Your task to perform on an android device: turn pop-ups on in chrome Image 0: 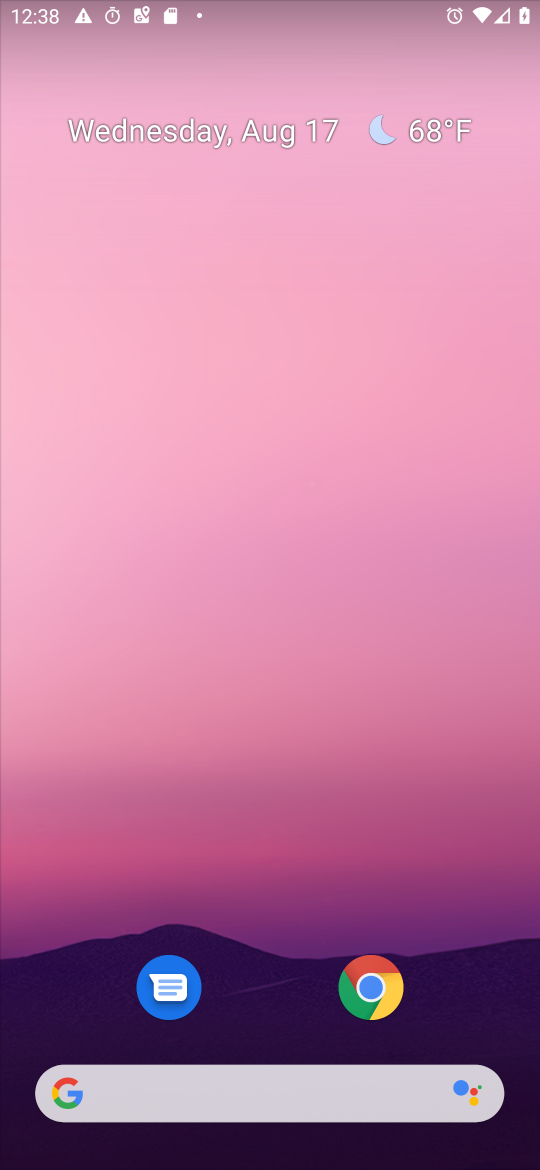
Step 0: drag from (119, 1078) to (179, 448)
Your task to perform on an android device: turn pop-ups on in chrome Image 1: 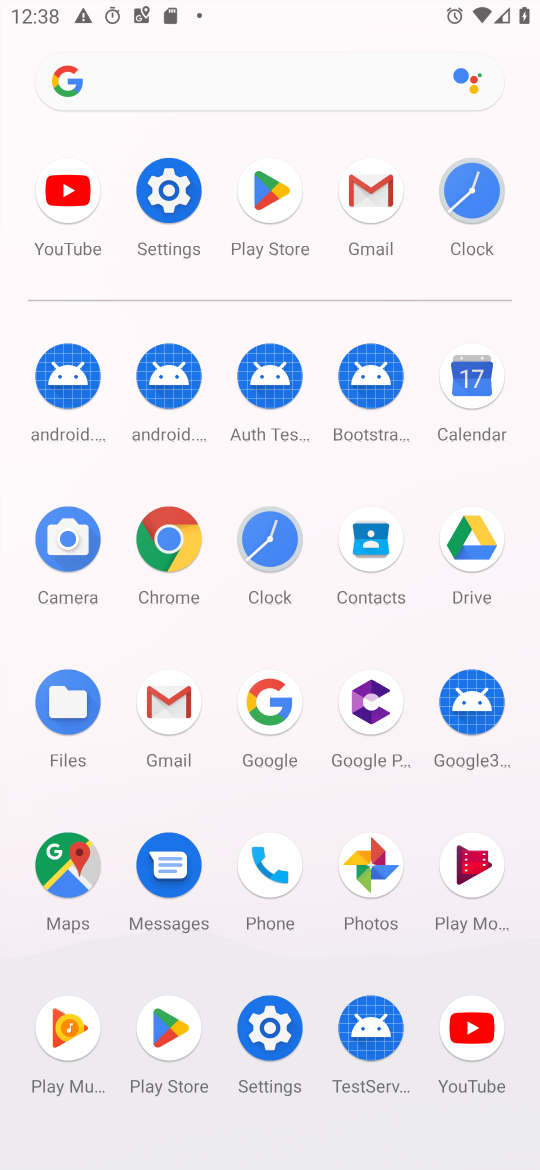
Step 1: click (158, 567)
Your task to perform on an android device: turn pop-ups on in chrome Image 2: 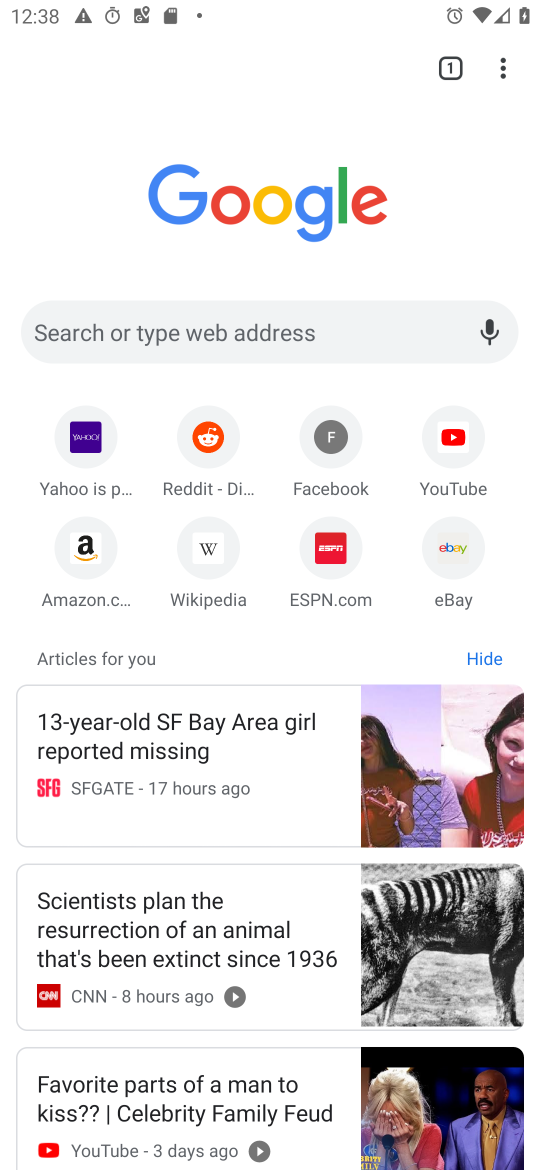
Step 2: click (502, 67)
Your task to perform on an android device: turn pop-ups on in chrome Image 3: 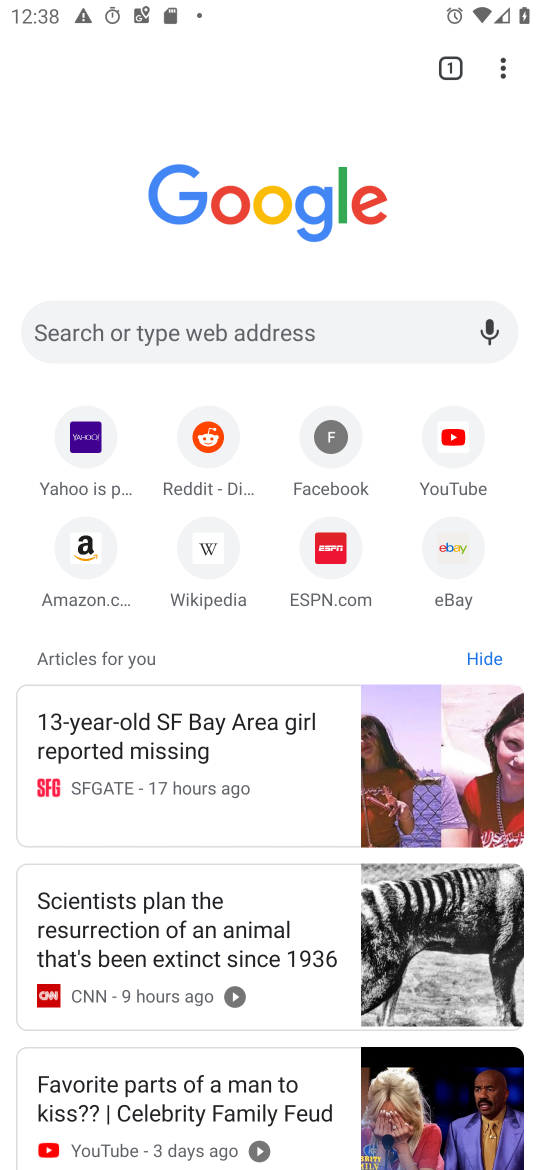
Step 3: click (505, 69)
Your task to perform on an android device: turn pop-ups on in chrome Image 4: 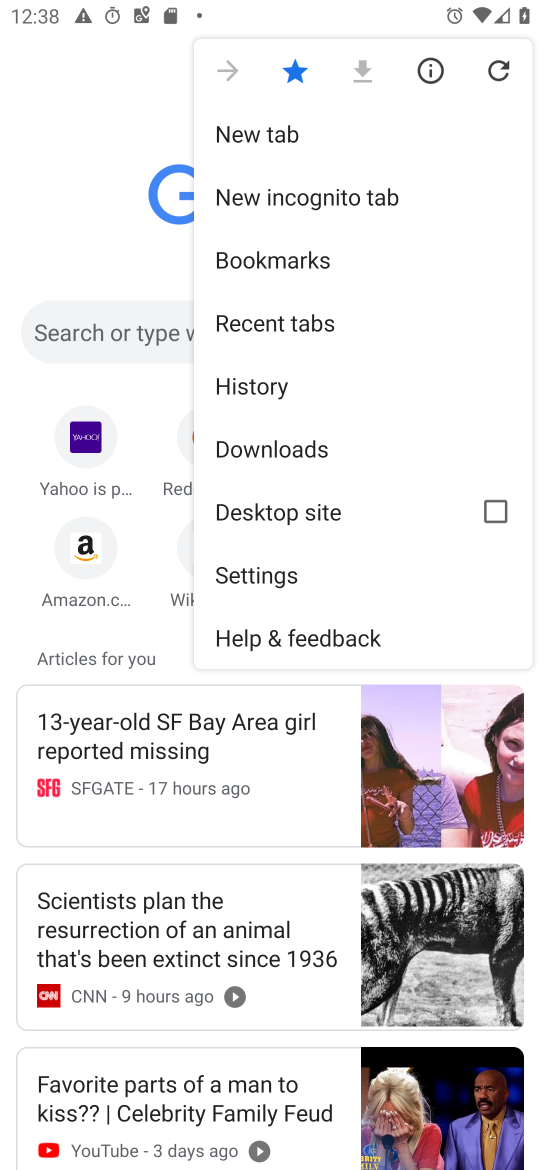
Step 4: click (242, 557)
Your task to perform on an android device: turn pop-ups on in chrome Image 5: 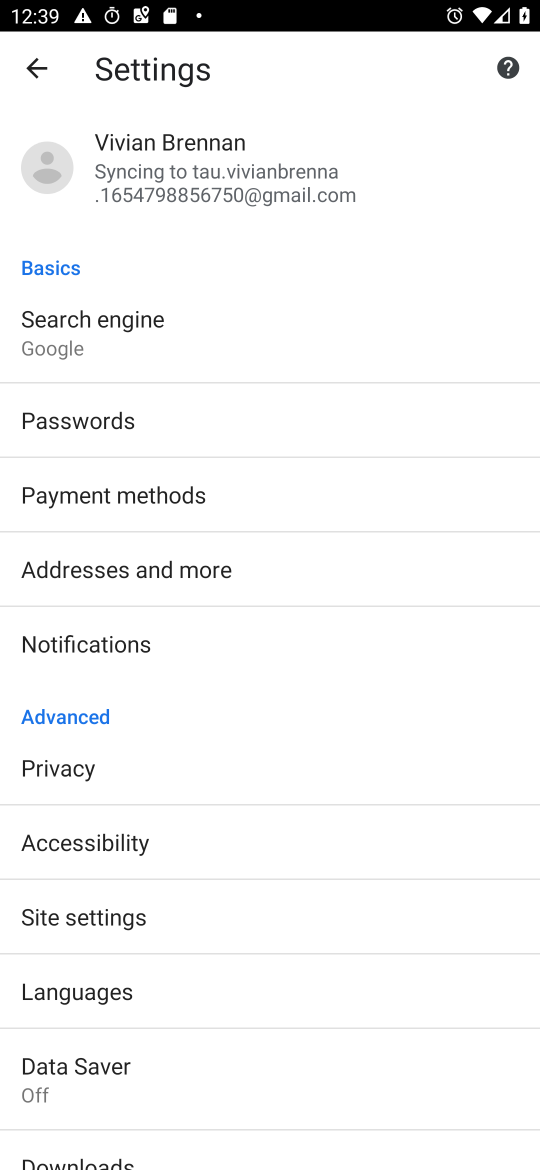
Step 5: drag from (312, 1062) to (279, 543)
Your task to perform on an android device: turn pop-ups on in chrome Image 6: 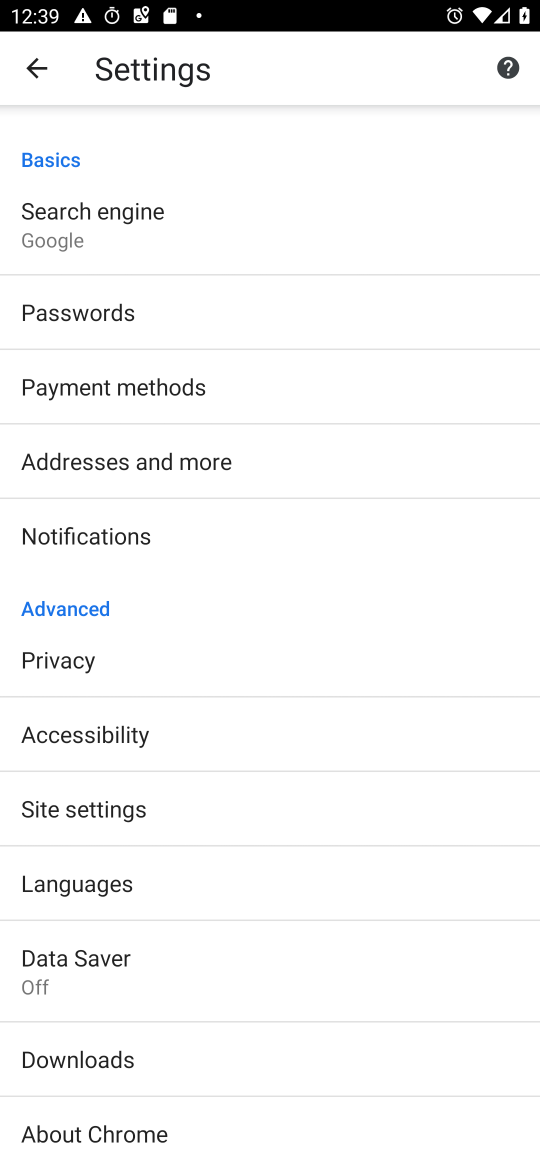
Step 6: click (98, 810)
Your task to perform on an android device: turn pop-ups on in chrome Image 7: 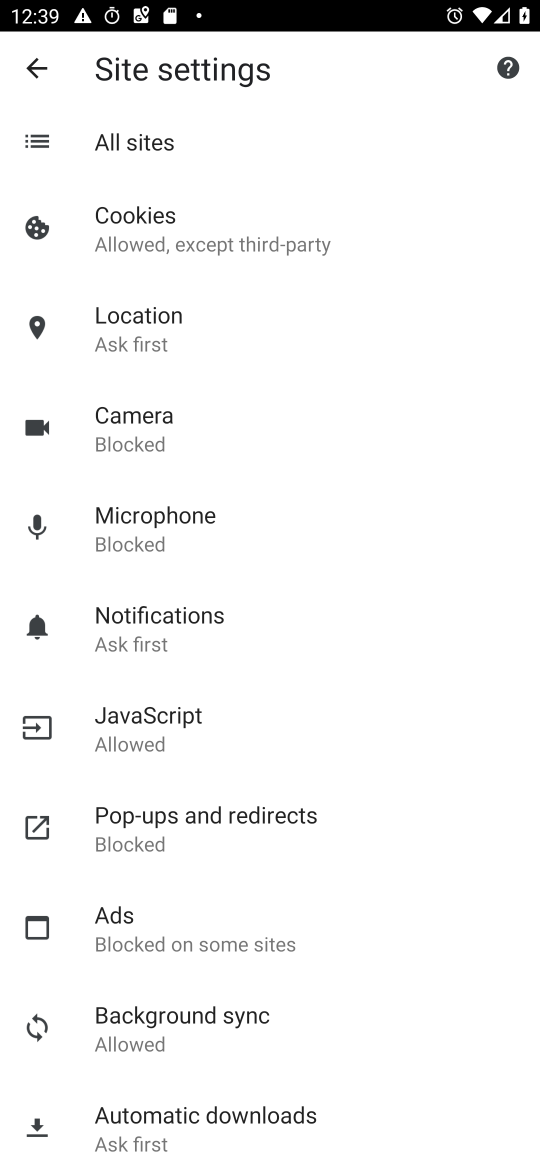
Step 7: click (182, 834)
Your task to perform on an android device: turn pop-ups on in chrome Image 8: 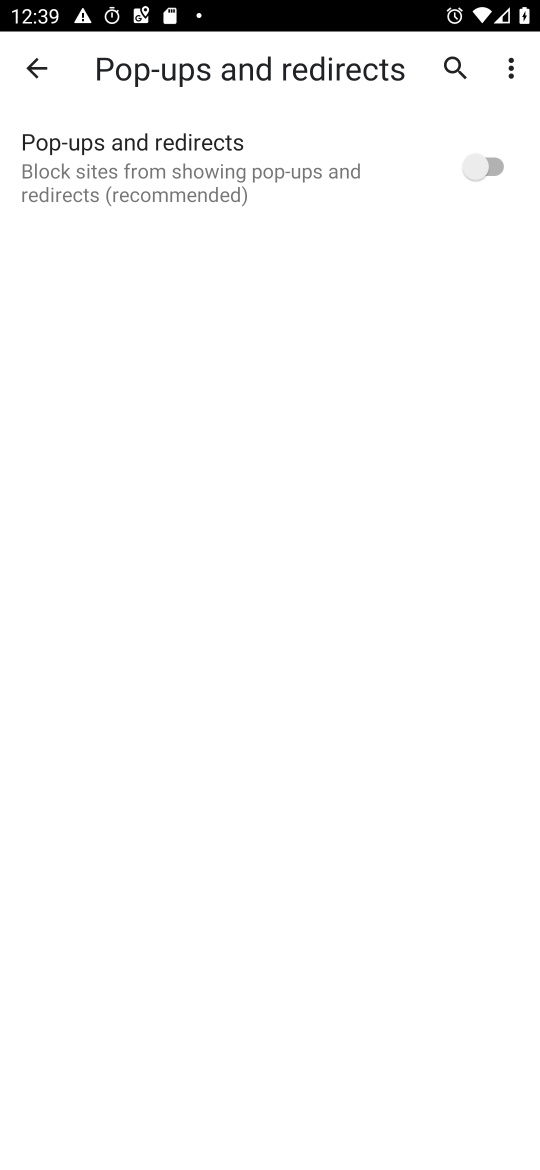
Step 8: click (482, 180)
Your task to perform on an android device: turn pop-ups on in chrome Image 9: 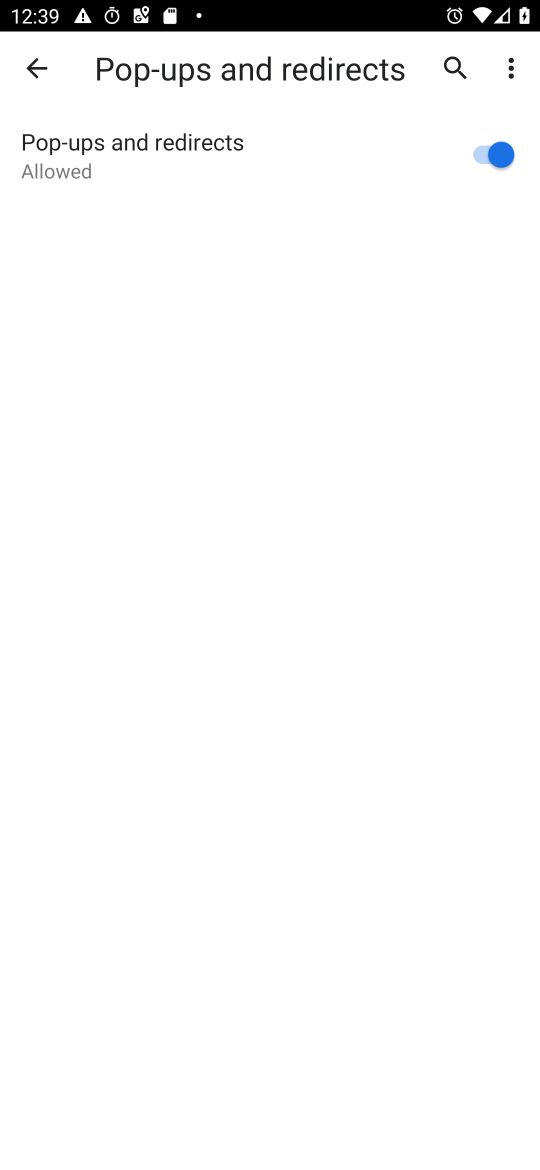
Step 9: task complete